Your task to perform on an android device: star an email in the gmail app Image 0: 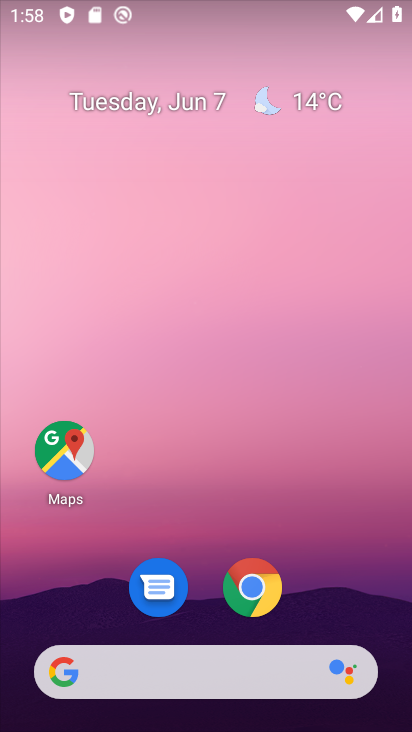
Step 0: drag from (69, 646) to (167, 203)
Your task to perform on an android device: star an email in the gmail app Image 1: 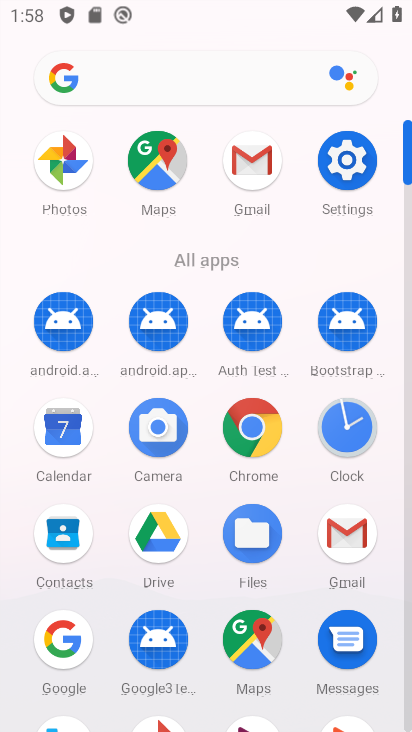
Step 1: drag from (153, 652) to (221, 305)
Your task to perform on an android device: star an email in the gmail app Image 2: 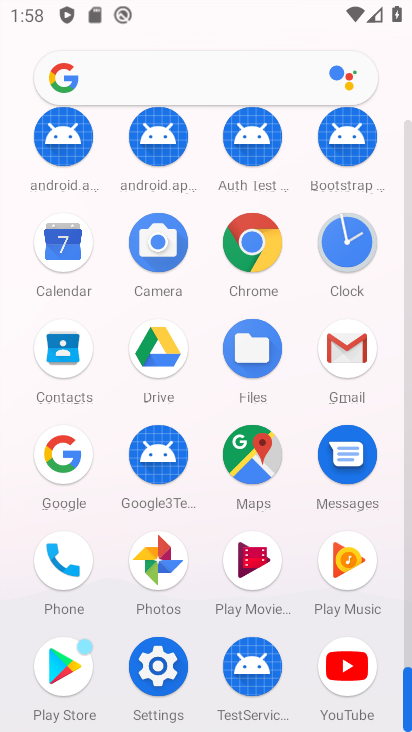
Step 2: click (356, 346)
Your task to perform on an android device: star an email in the gmail app Image 3: 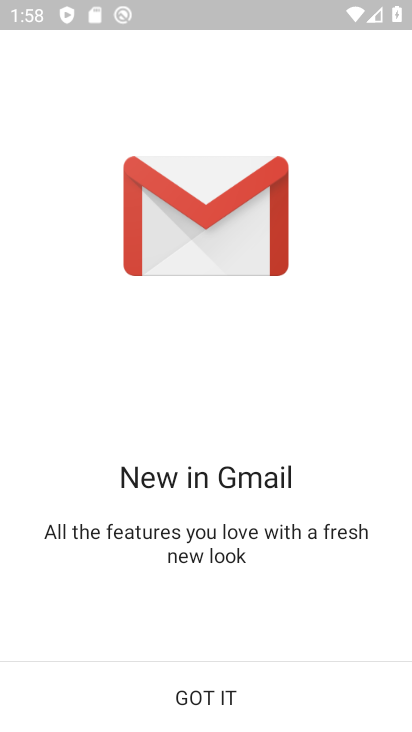
Step 3: click (261, 697)
Your task to perform on an android device: star an email in the gmail app Image 4: 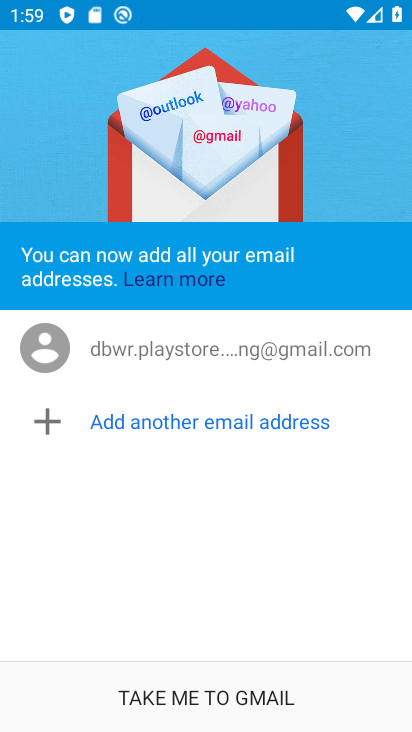
Step 4: click (260, 695)
Your task to perform on an android device: star an email in the gmail app Image 5: 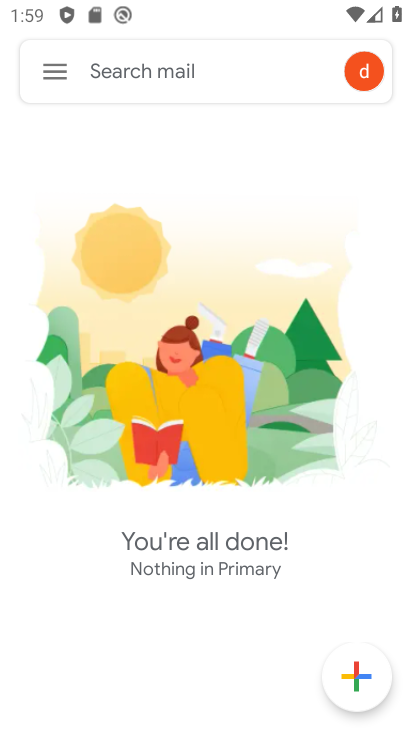
Step 5: click (66, 86)
Your task to perform on an android device: star an email in the gmail app Image 6: 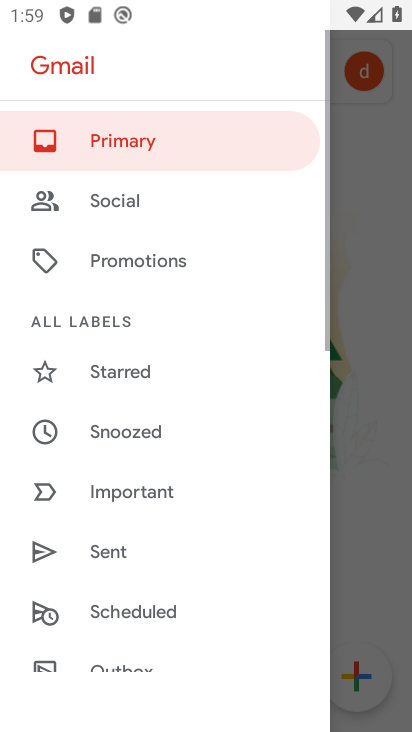
Step 6: drag from (168, 563) to (245, 261)
Your task to perform on an android device: star an email in the gmail app Image 7: 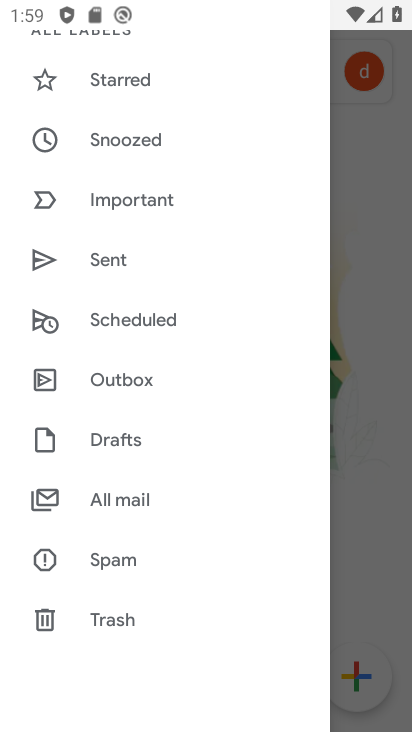
Step 7: click (173, 498)
Your task to perform on an android device: star an email in the gmail app Image 8: 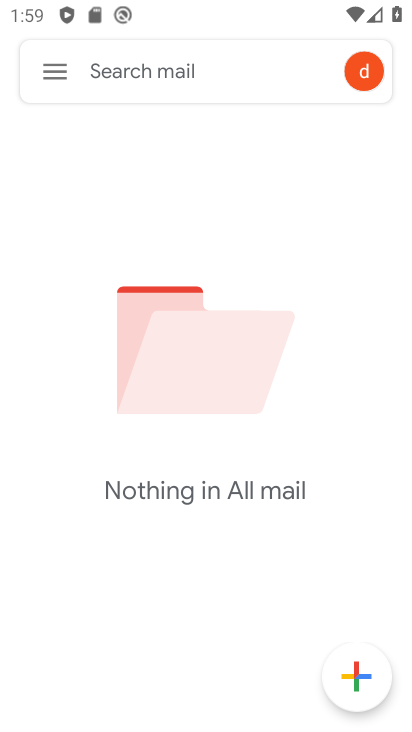
Step 8: task complete